Your task to perform on an android device: turn on location history Image 0: 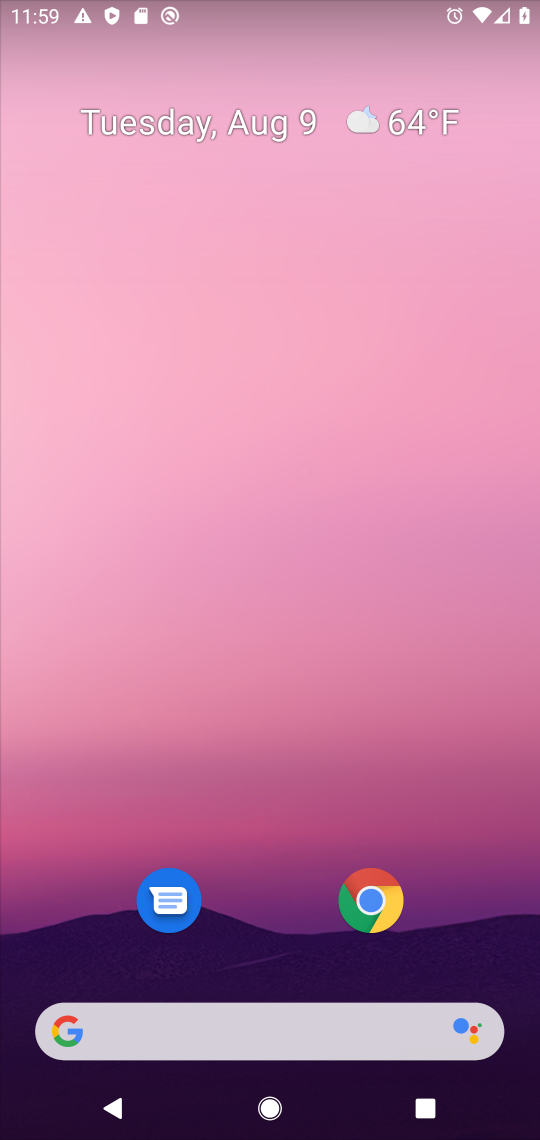
Step 0: drag from (284, 854) to (323, 77)
Your task to perform on an android device: turn on location history Image 1: 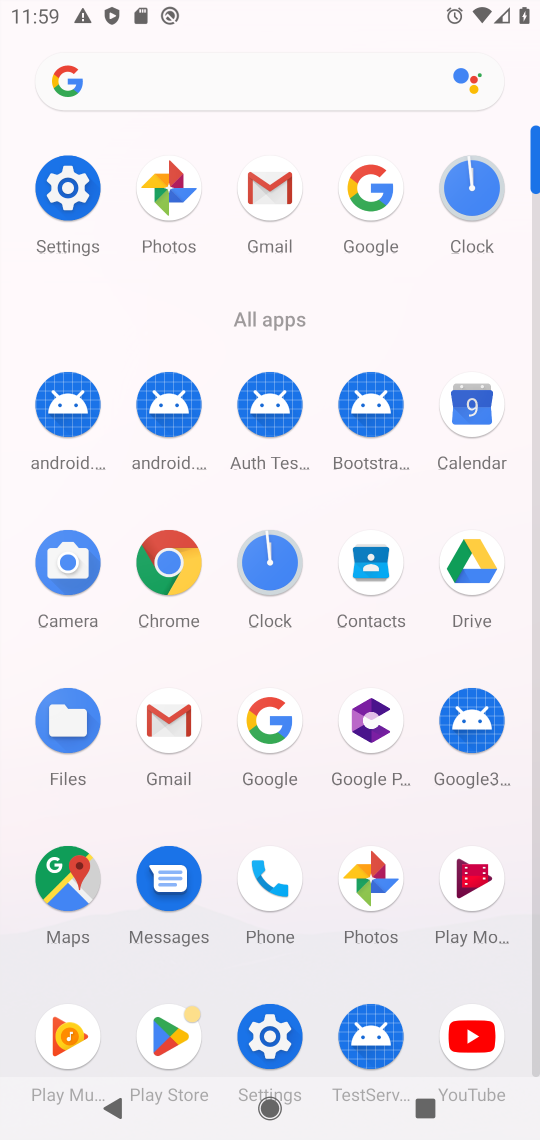
Step 1: click (72, 193)
Your task to perform on an android device: turn on location history Image 2: 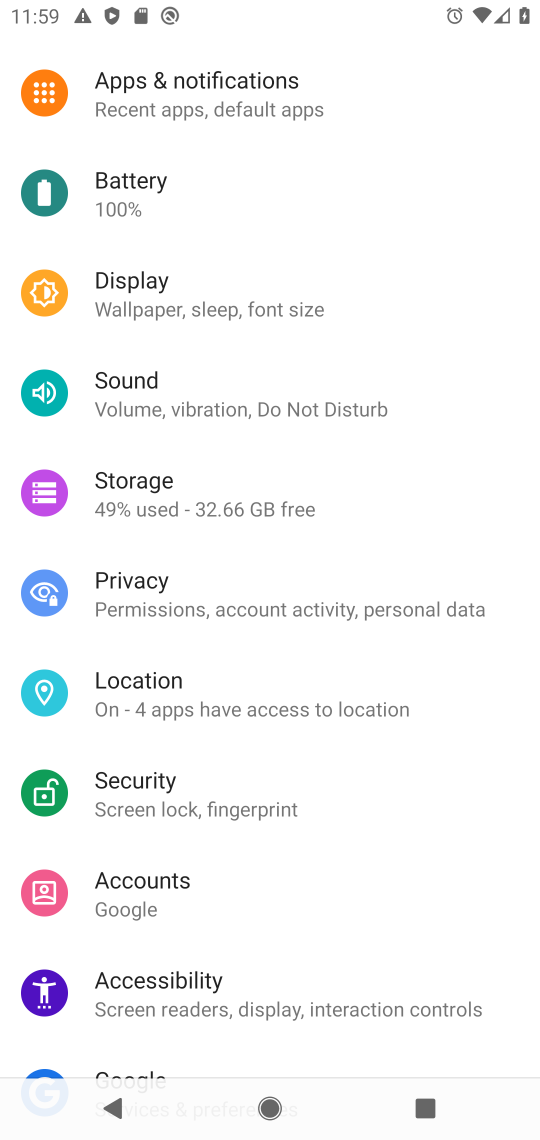
Step 2: click (210, 697)
Your task to perform on an android device: turn on location history Image 3: 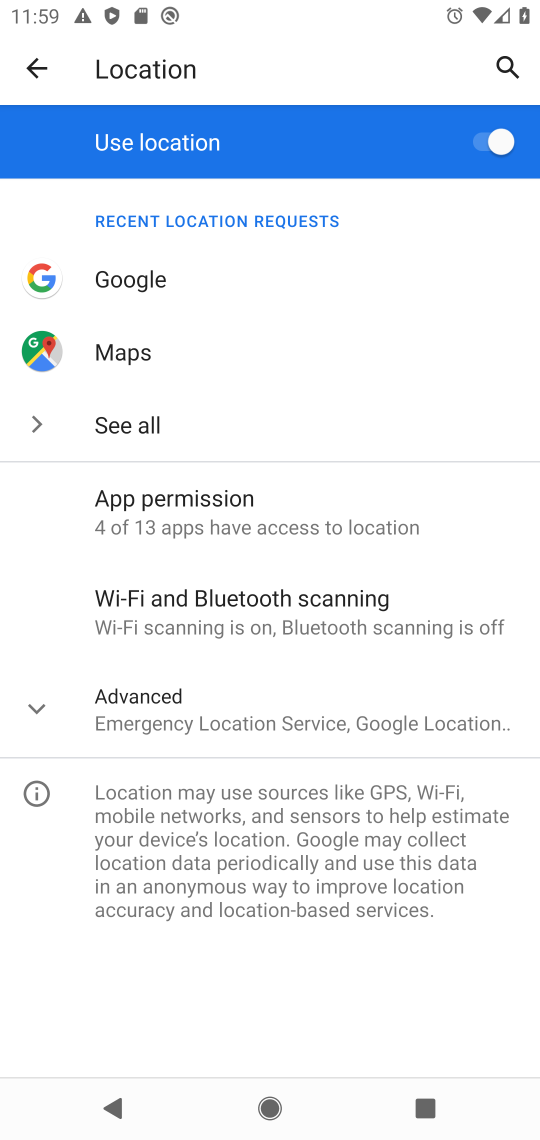
Step 3: click (40, 705)
Your task to perform on an android device: turn on location history Image 4: 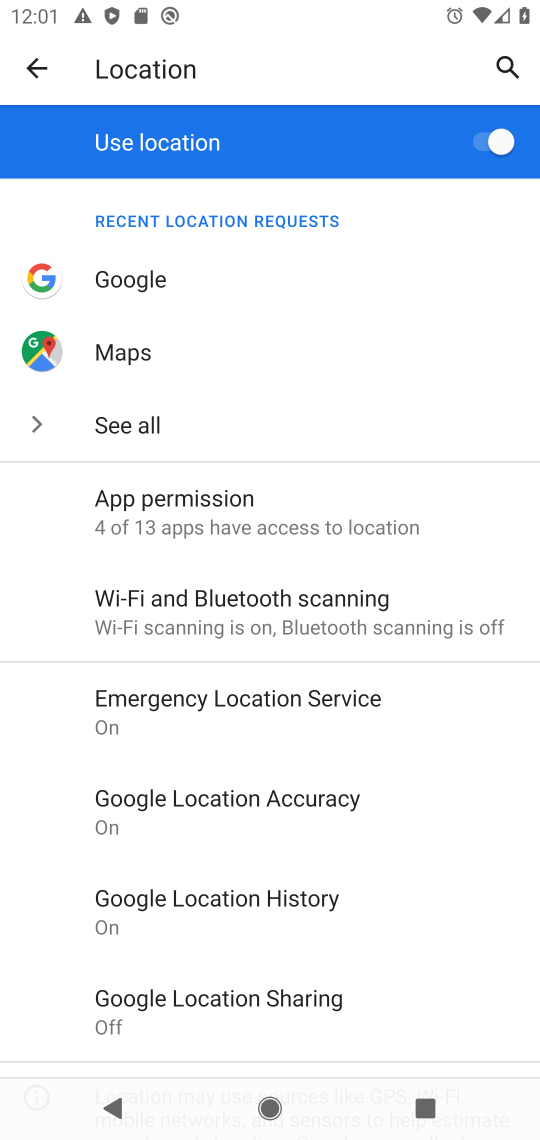
Step 4: task complete